Your task to perform on an android device: Open the calendar app, open the side menu, and click the "Day" option Image 0: 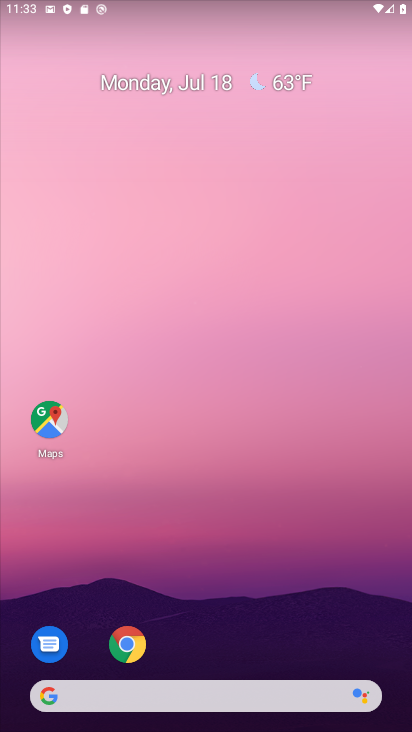
Step 0: drag from (240, 629) to (240, 229)
Your task to perform on an android device: Open the calendar app, open the side menu, and click the "Day" option Image 1: 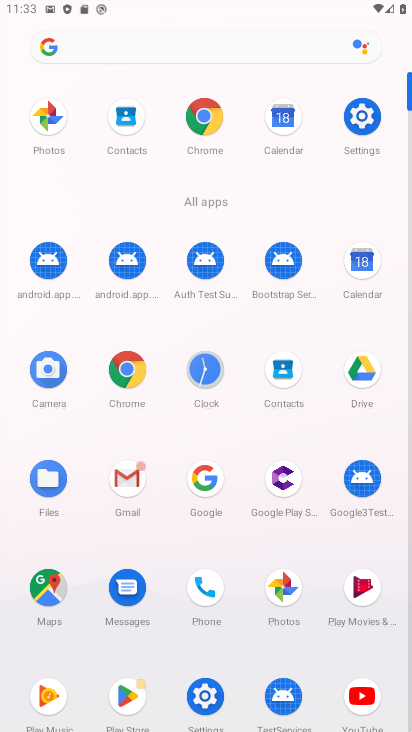
Step 1: click (356, 264)
Your task to perform on an android device: Open the calendar app, open the side menu, and click the "Day" option Image 2: 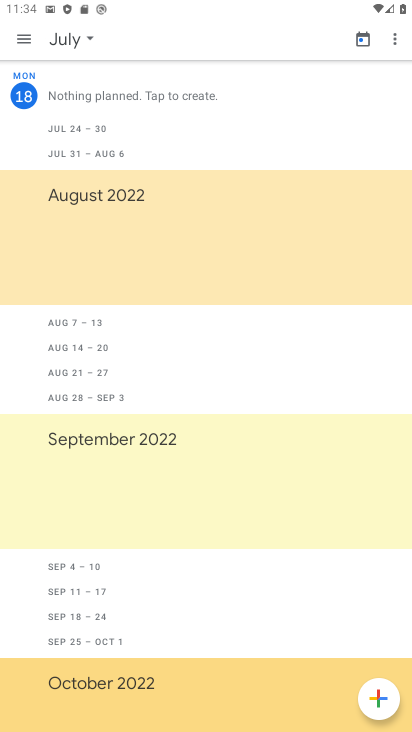
Step 2: click (20, 40)
Your task to perform on an android device: Open the calendar app, open the side menu, and click the "Day" option Image 3: 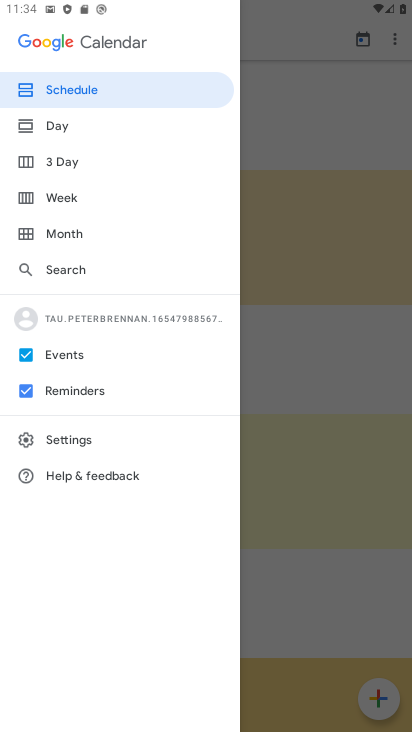
Step 3: click (56, 122)
Your task to perform on an android device: Open the calendar app, open the side menu, and click the "Day" option Image 4: 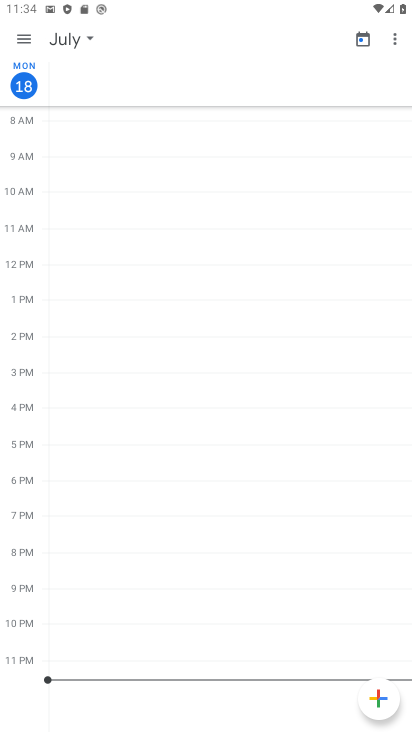
Step 4: task complete